Your task to perform on an android device: toggle show notifications on the lock screen Image 0: 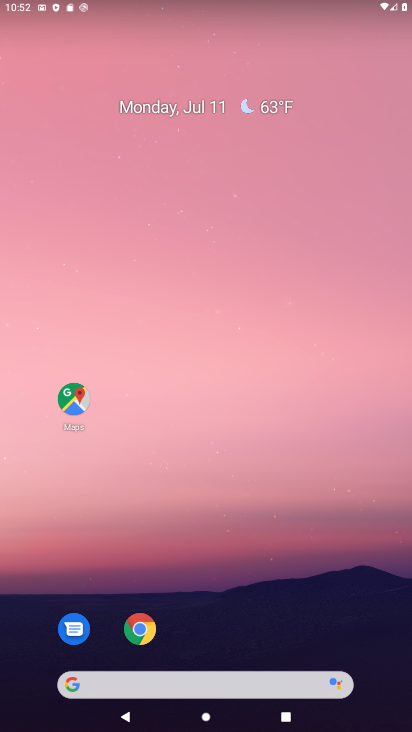
Step 0: drag from (264, 633) to (256, 94)
Your task to perform on an android device: toggle show notifications on the lock screen Image 1: 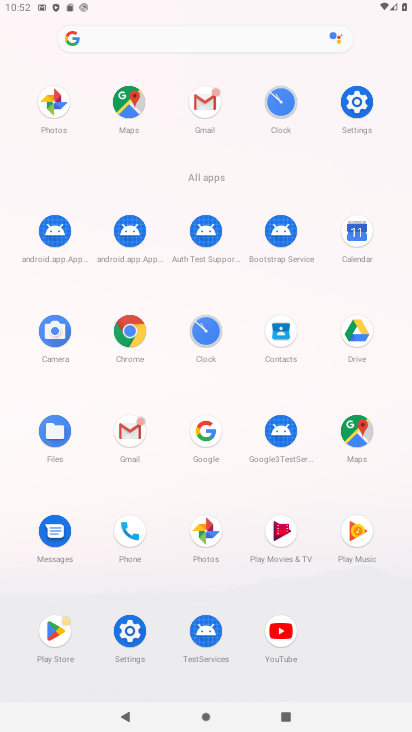
Step 1: click (356, 105)
Your task to perform on an android device: toggle show notifications on the lock screen Image 2: 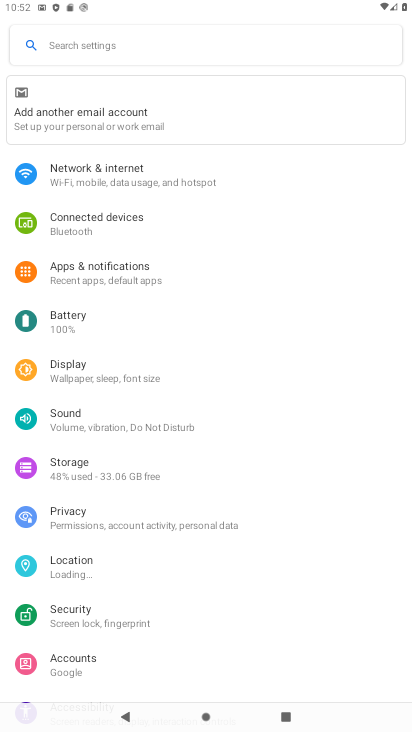
Step 2: click (111, 180)
Your task to perform on an android device: toggle show notifications on the lock screen Image 3: 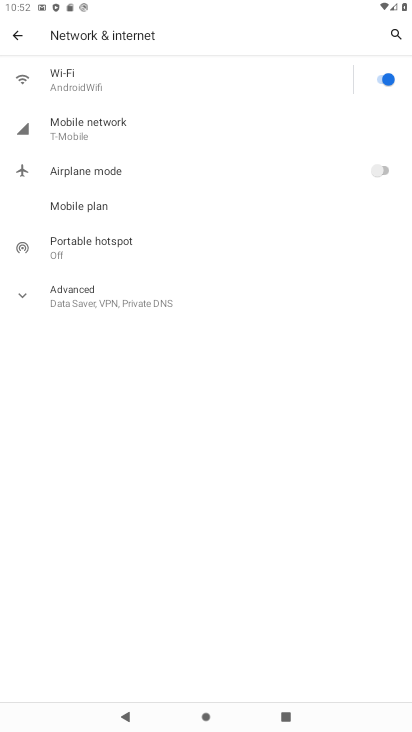
Step 3: task complete